Your task to perform on an android device: Go to sound settings Image 0: 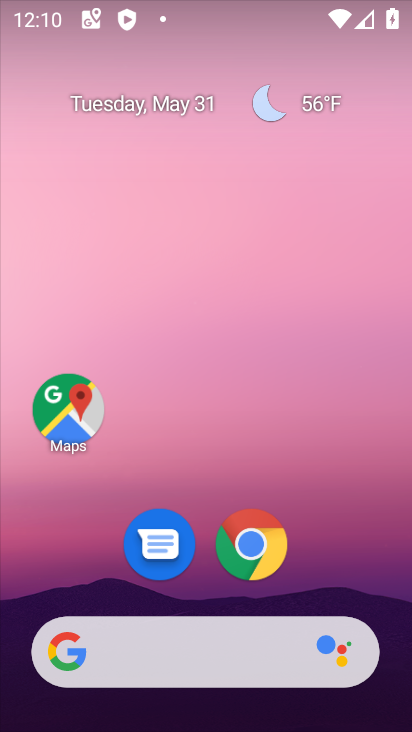
Step 0: drag from (311, 482) to (218, 40)
Your task to perform on an android device: Go to sound settings Image 1: 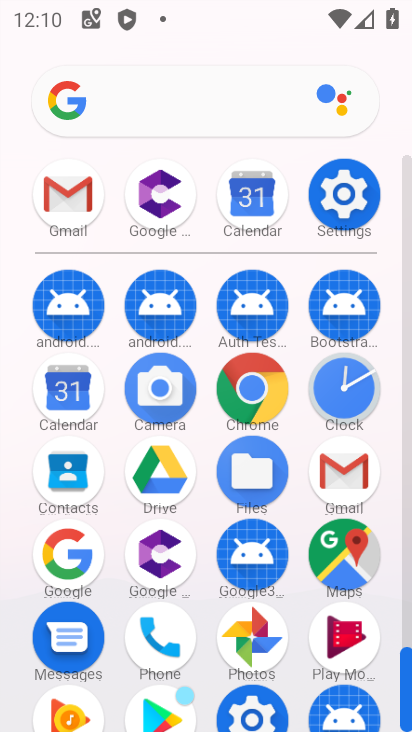
Step 1: click (345, 188)
Your task to perform on an android device: Go to sound settings Image 2: 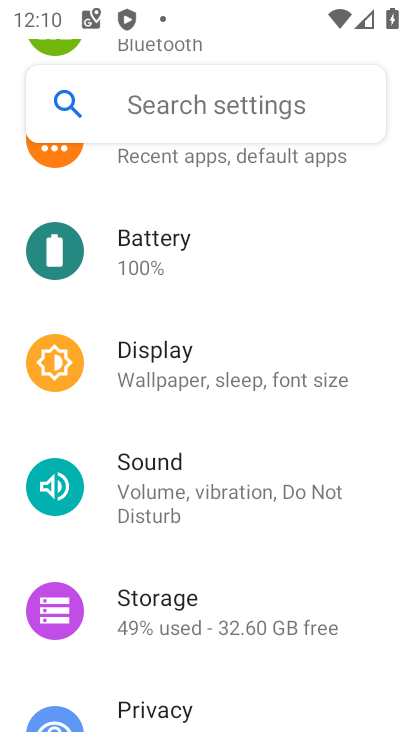
Step 2: click (157, 465)
Your task to perform on an android device: Go to sound settings Image 3: 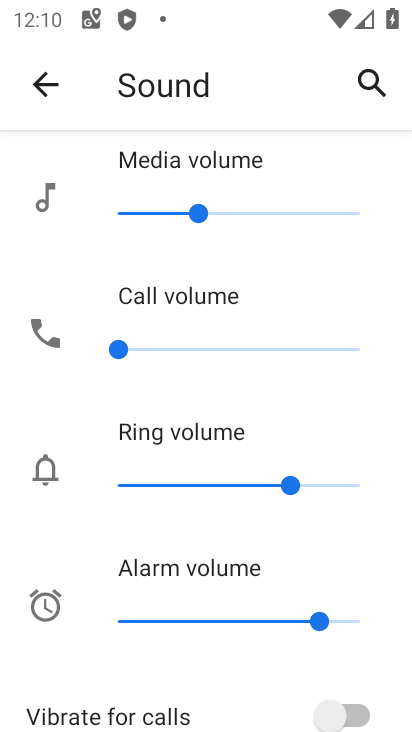
Step 3: task complete